Your task to perform on an android device: empty trash in google photos Image 0: 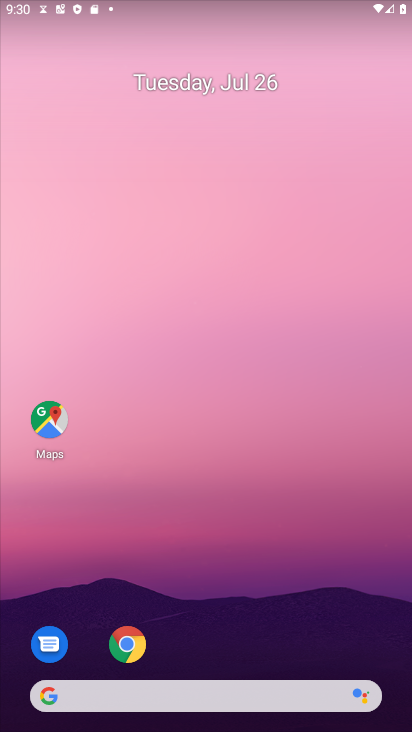
Step 0: drag from (208, 654) to (258, 5)
Your task to perform on an android device: empty trash in google photos Image 1: 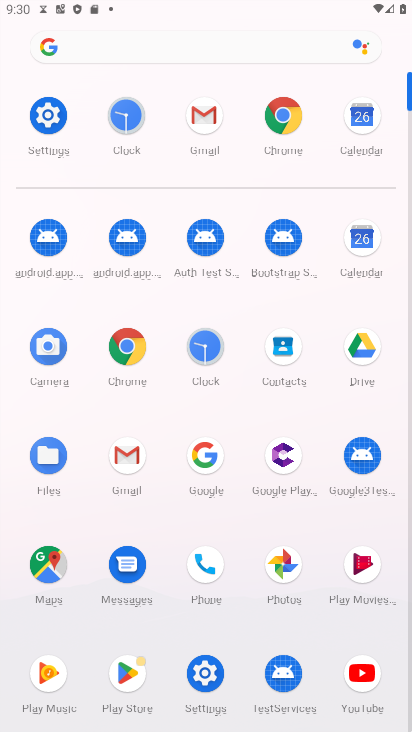
Step 1: click (288, 576)
Your task to perform on an android device: empty trash in google photos Image 2: 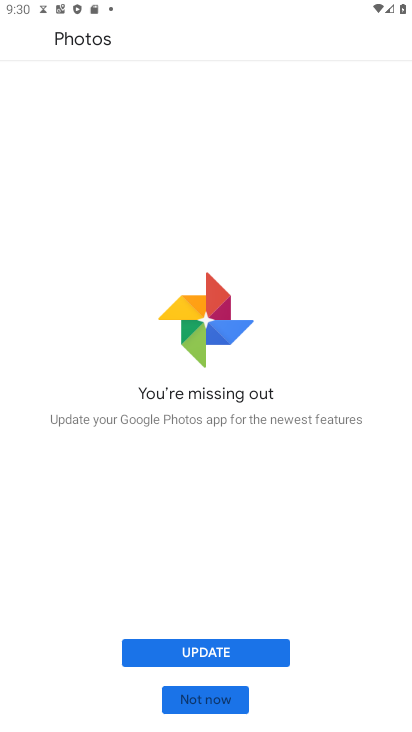
Step 2: click (203, 707)
Your task to perform on an android device: empty trash in google photos Image 3: 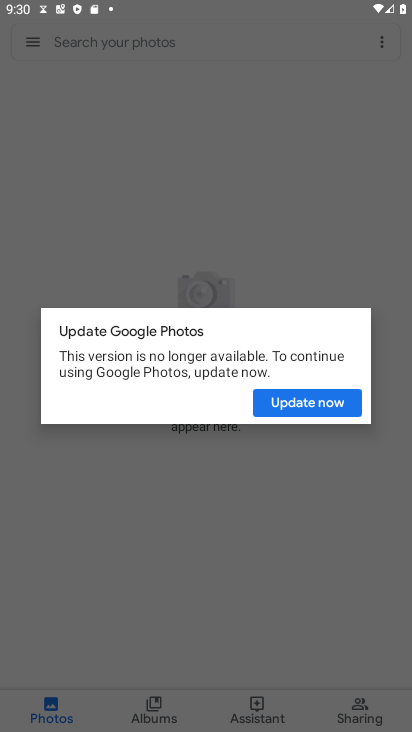
Step 3: click (321, 396)
Your task to perform on an android device: empty trash in google photos Image 4: 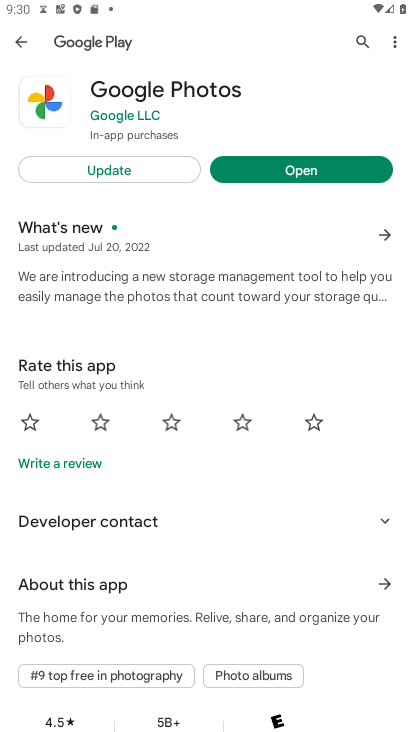
Step 4: click (300, 164)
Your task to perform on an android device: empty trash in google photos Image 5: 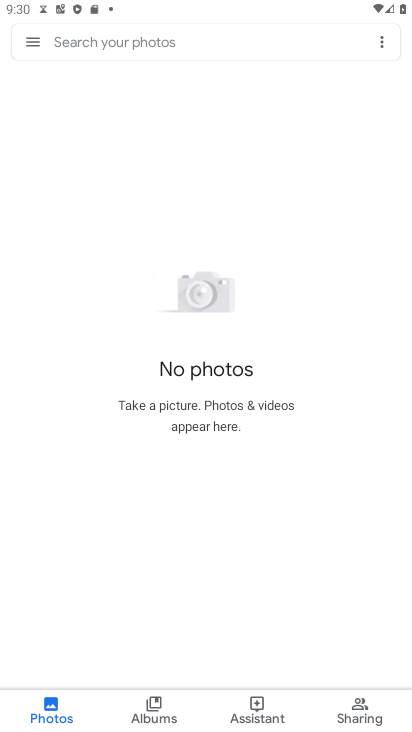
Step 5: click (38, 36)
Your task to perform on an android device: empty trash in google photos Image 6: 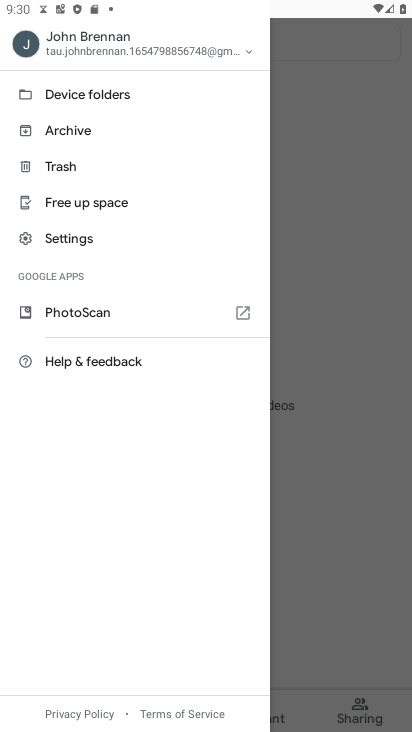
Step 6: click (79, 169)
Your task to perform on an android device: empty trash in google photos Image 7: 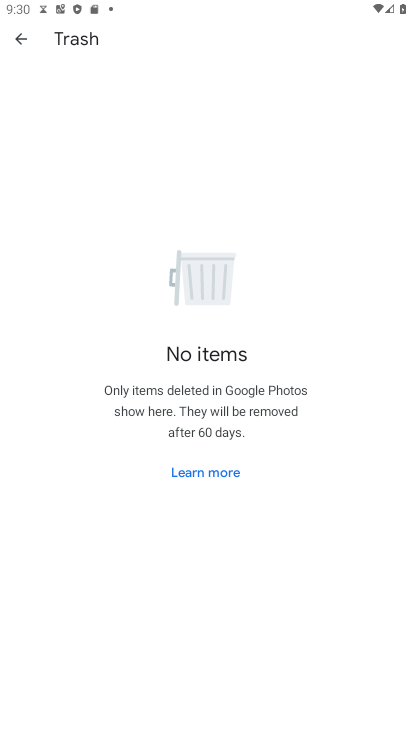
Step 7: task complete